Your task to perform on an android device: Go to accessibility settings Image 0: 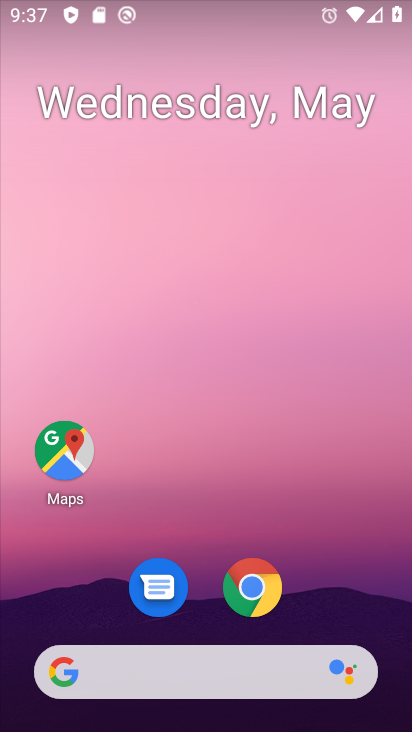
Step 0: drag from (70, 631) to (216, 172)
Your task to perform on an android device: Go to accessibility settings Image 1: 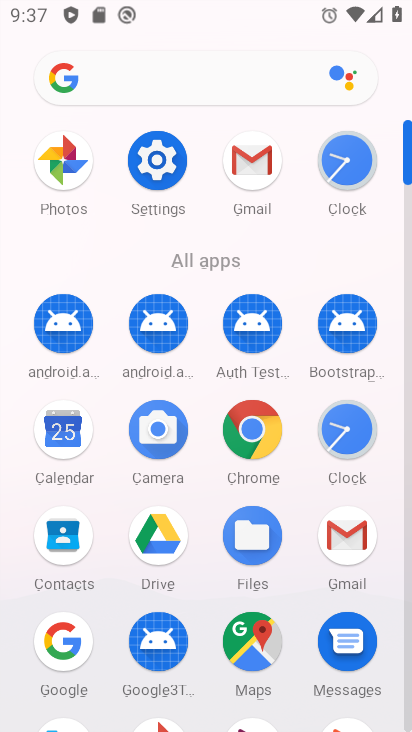
Step 1: drag from (170, 649) to (224, 426)
Your task to perform on an android device: Go to accessibility settings Image 2: 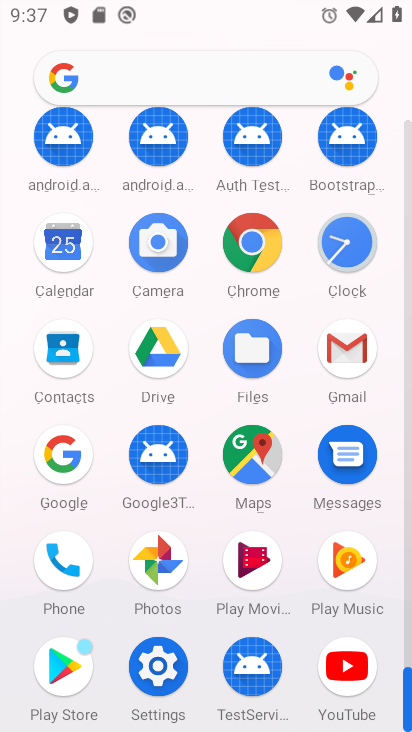
Step 2: click (167, 673)
Your task to perform on an android device: Go to accessibility settings Image 3: 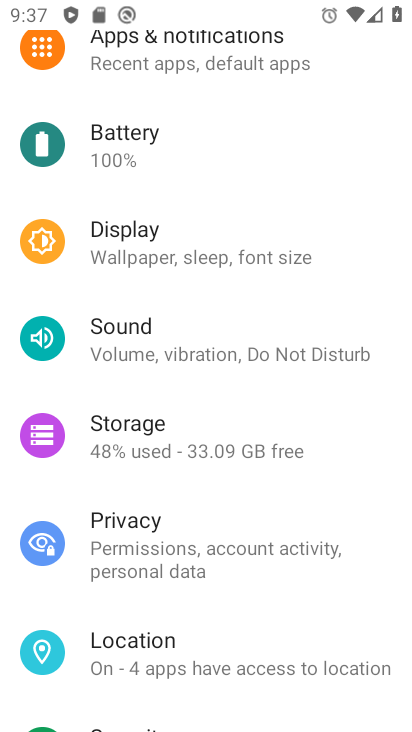
Step 3: drag from (143, 581) to (322, 0)
Your task to perform on an android device: Go to accessibility settings Image 4: 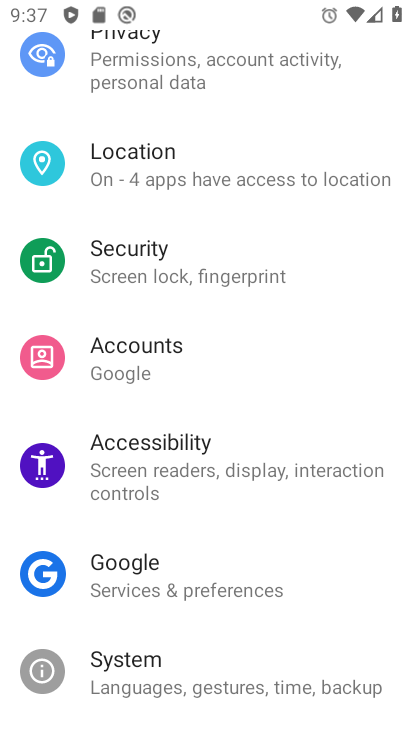
Step 4: drag from (174, 624) to (269, 315)
Your task to perform on an android device: Go to accessibility settings Image 5: 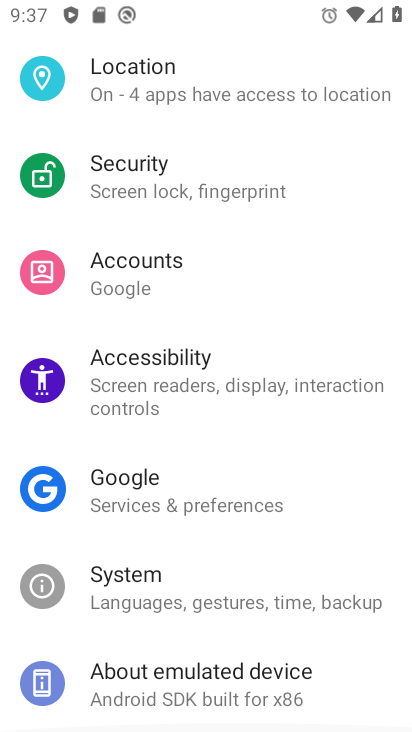
Step 5: click (194, 385)
Your task to perform on an android device: Go to accessibility settings Image 6: 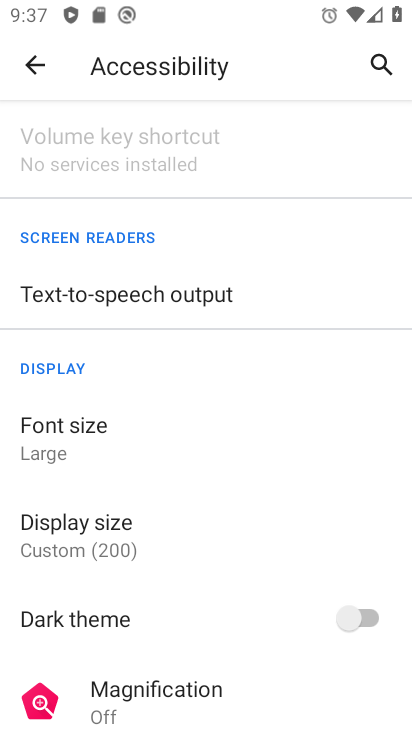
Step 6: task complete